Your task to perform on an android device: Open Chrome and go to settings Image 0: 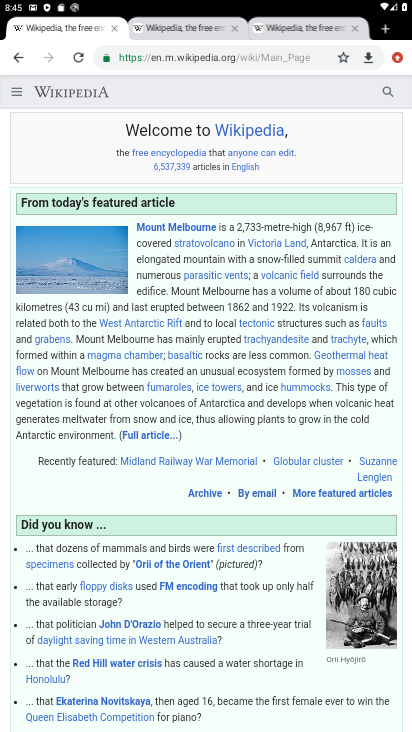
Step 0: press back button
Your task to perform on an android device: Open Chrome and go to settings Image 1: 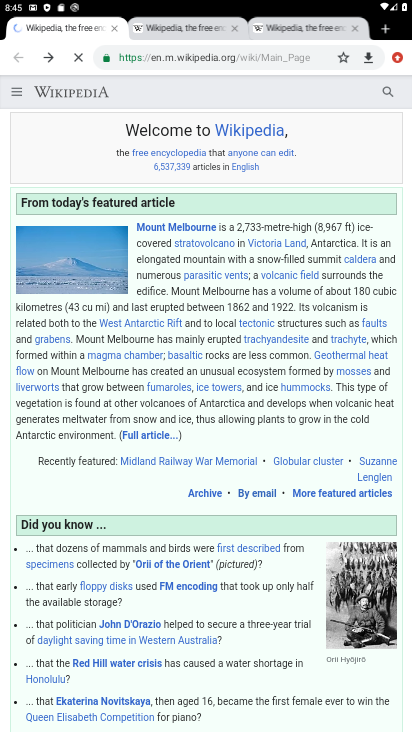
Step 1: press back button
Your task to perform on an android device: Open Chrome and go to settings Image 2: 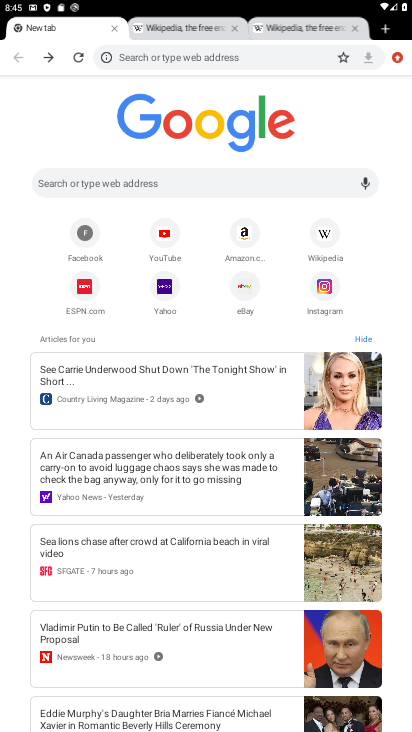
Step 2: click (387, 29)
Your task to perform on an android device: Open Chrome and go to settings Image 3: 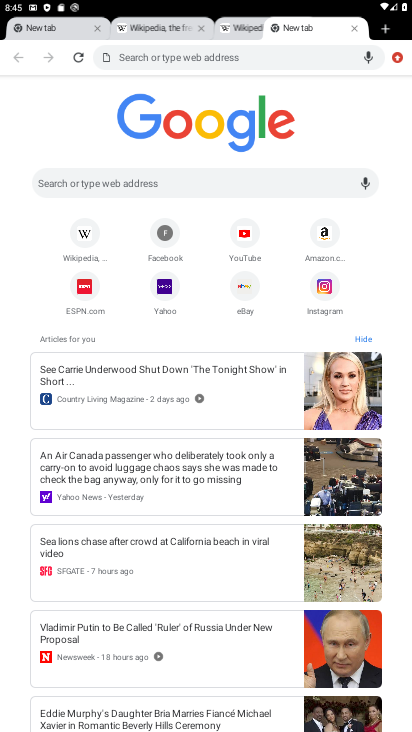
Step 3: click (387, 64)
Your task to perform on an android device: Open Chrome and go to settings Image 4: 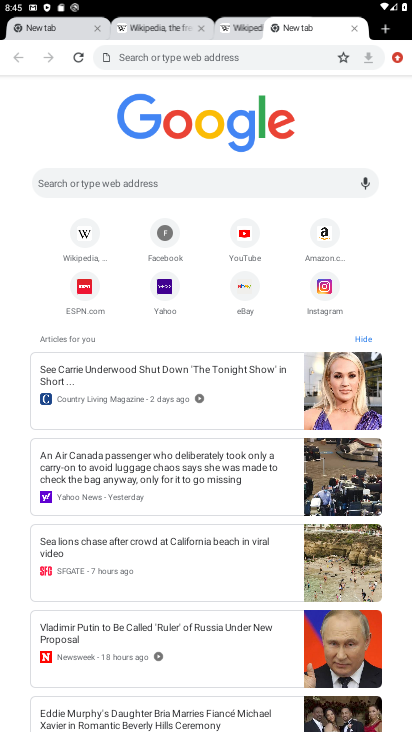
Step 4: click (387, 64)
Your task to perform on an android device: Open Chrome and go to settings Image 5: 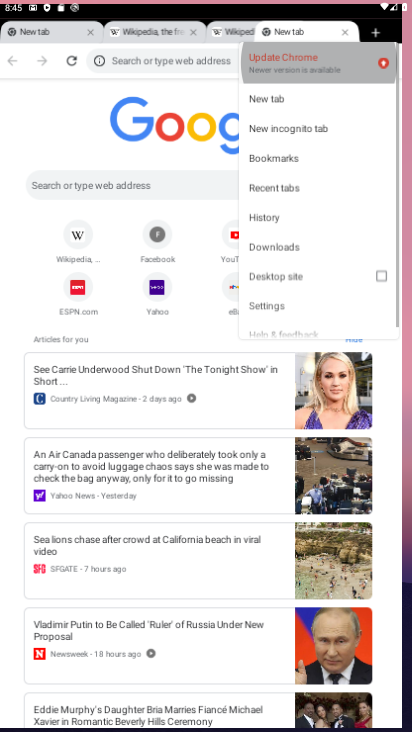
Step 5: click (388, 65)
Your task to perform on an android device: Open Chrome and go to settings Image 6: 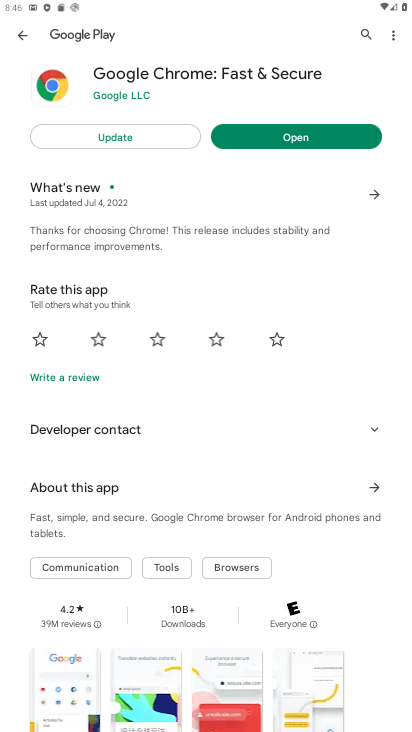
Step 6: press back button
Your task to perform on an android device: Open Chrome and go to settings Image 7: 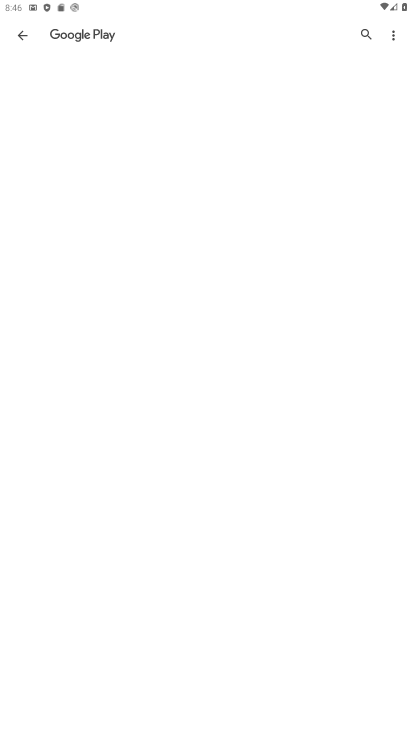
Step 7: press back button
Your task to perform on an android device: Open Chrome and go to settings Image 8: 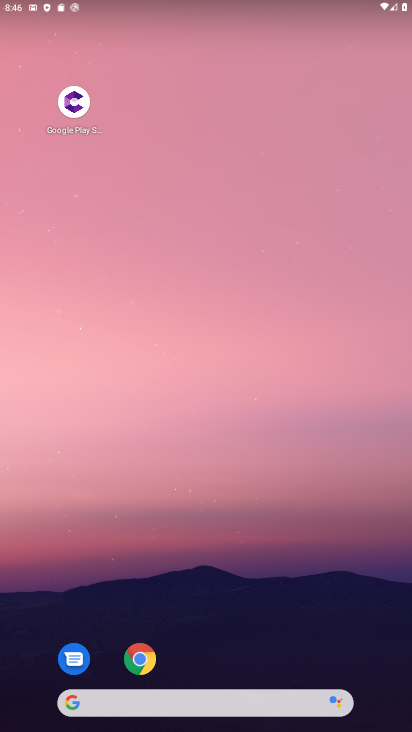
Step 8: drag from (141, 360) to (90, 47)
Your task to perform on an android device: Open Chrome and go to settings Image 9: 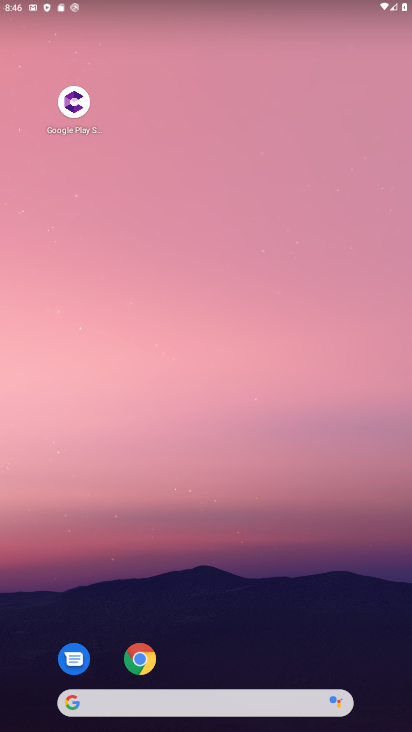
Step 9: drag from (155, 517) to (91, 79)
Your task to perform on an android device: Open Chrome and go to settings Image 10: 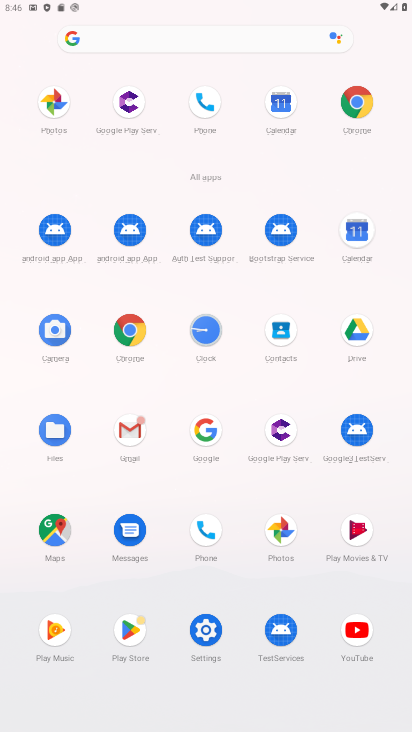
Step 10: click (124, 336)
Your task to perform on an android device: Open Chrome and go to settings Image 11: 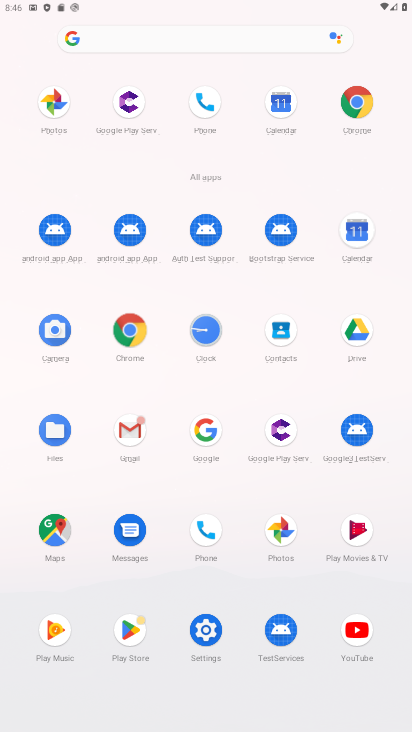
Step 11: click (124, 333)
Your task to perform on an android device: Open Chrome and go to settings Image 12: 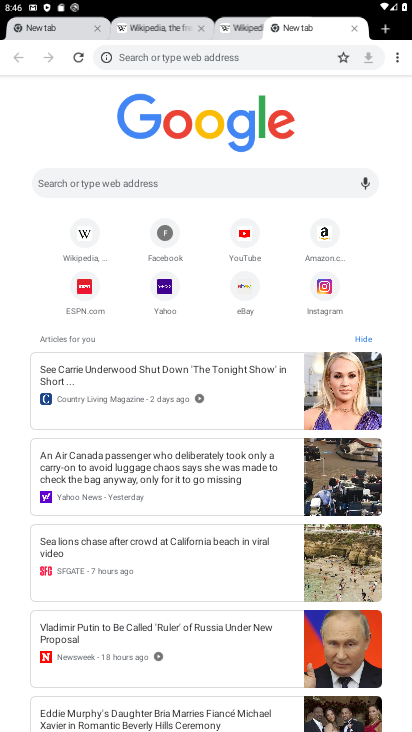
Step 12: click (395, 55)
Your task to perform on an android device: Open Chrome and go to settings Image 13: 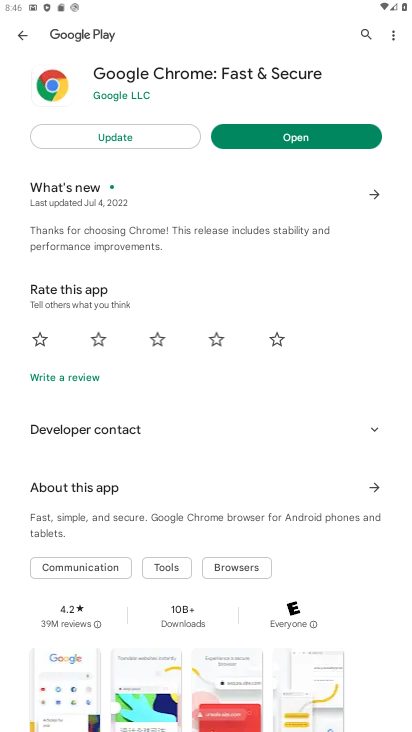
Step 13: click (388, 36)
Your task to perform on an android device: Open Chrome and go to settings Image 14: 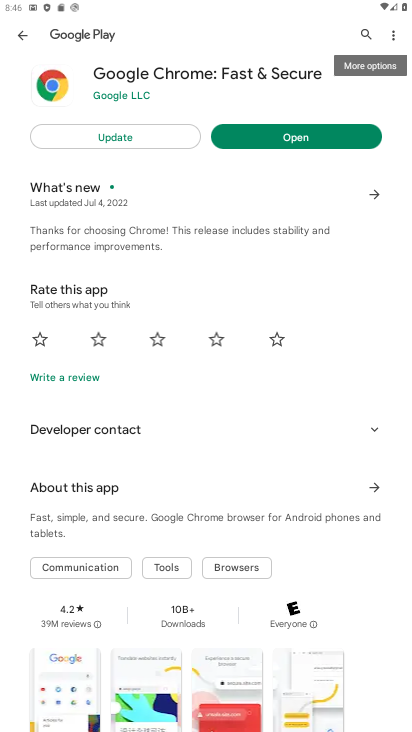
Step 14: press back button
Your task to perform on an android device: Open Chrome and go to settings Image 15: 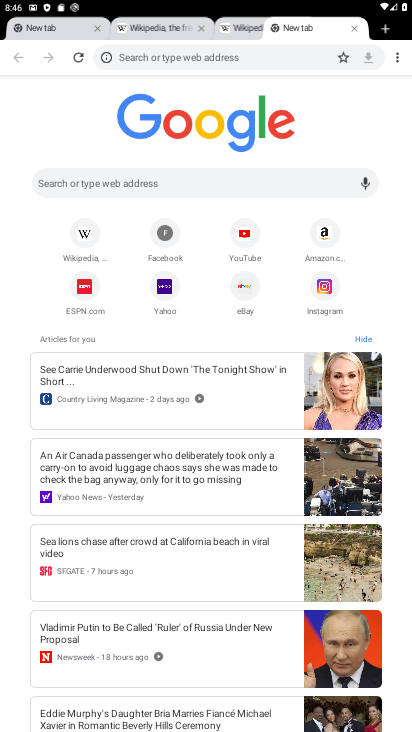
Step 15: drag from (395, 52) to (270, 308)
Your task to perform on an android device: Open Chrome and go to settings Image 16: 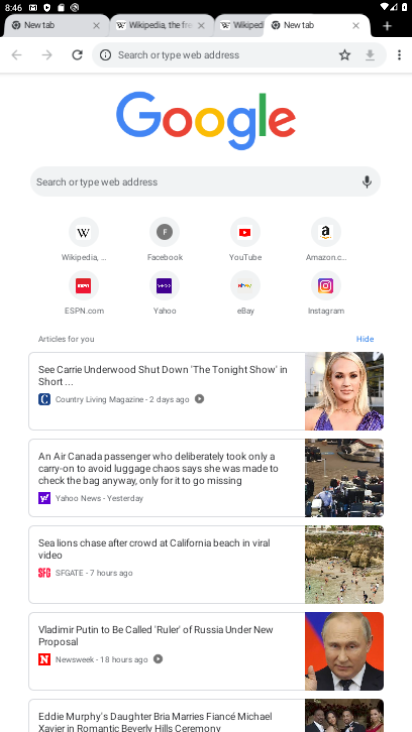
Step 16: click (268, 298)
Your task to perform on an android device: Open Chrome and go to settings Image 17: 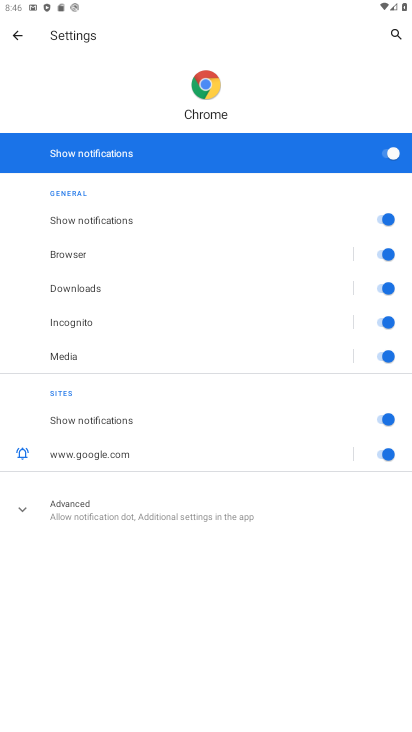
Step 17: task complete